Your task to perform on an android device: Go to accessibility settings Image 0: 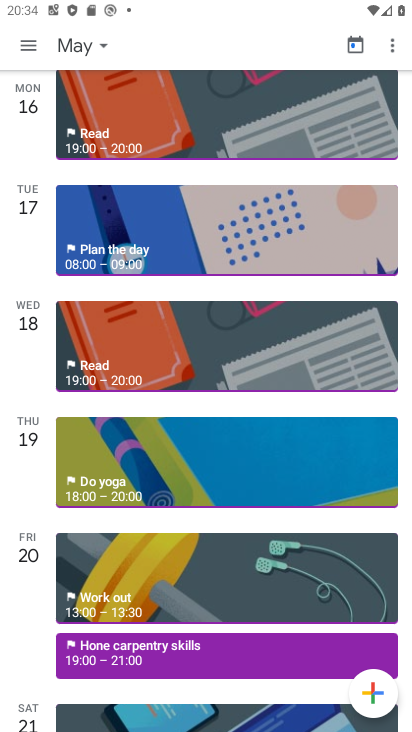
Step 0: press home button
Your task to perform on an android device: Go to accessibility settings Image 1: 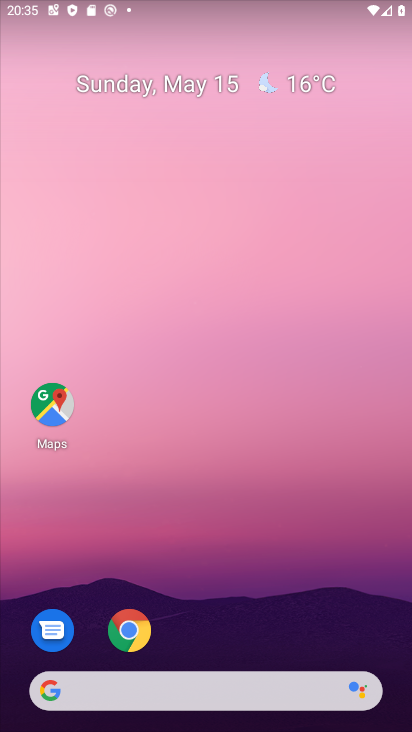
Step 1: drag from (223, 555) to (284, 5)
Your task to perform on an android device: Go to accessibility settings Image 2: 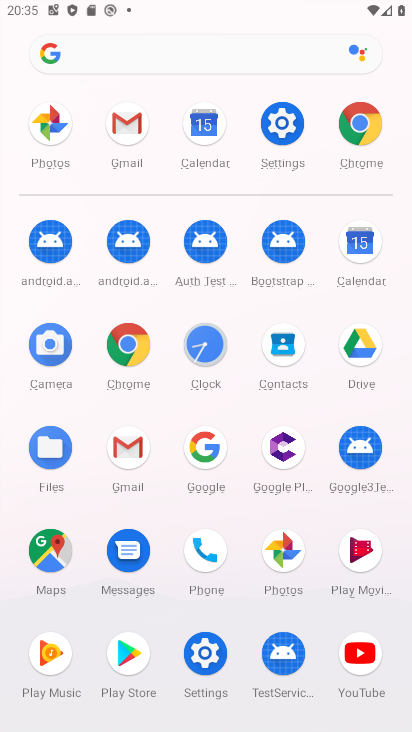
Step 2: click (278, 128)
Your task to perform on an android device: Go to accessibility settings Image 3: 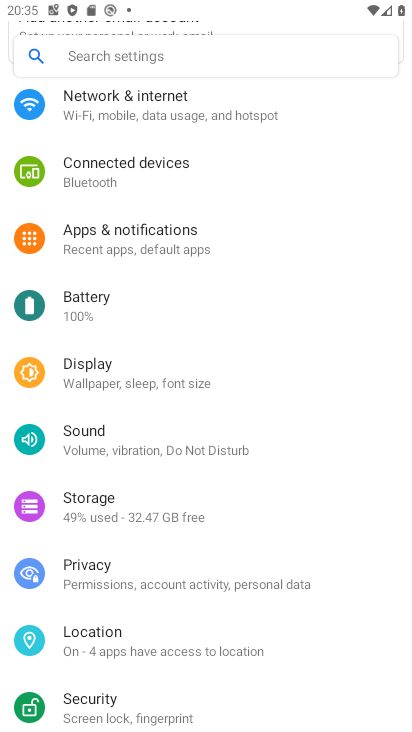
Step 3: drag from (145, 602) to (206, 84)
Your task to perform on an android device: Go to accessibility settings Image 4: 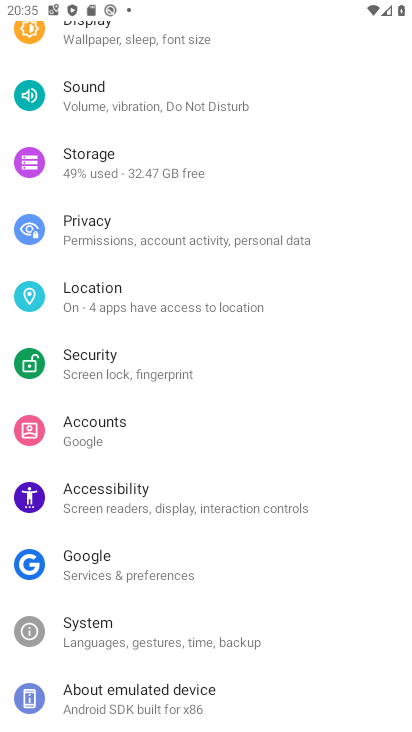
Step 4: click (134, 502)
Your task to perform on an android device: Go to accessibility settings Image 5: 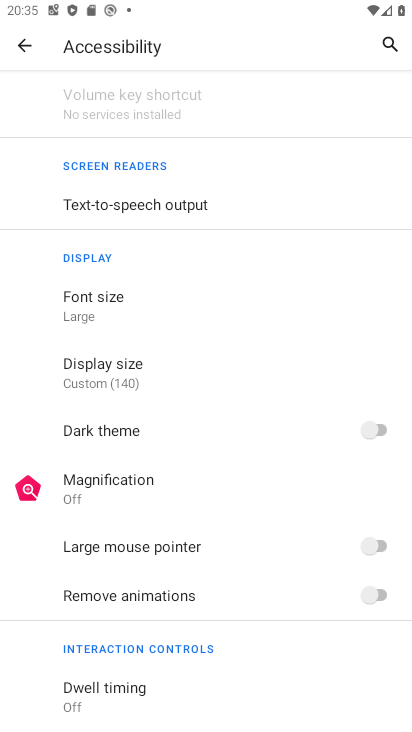
Step 5: task complete